Your task to perform on an android device: turn smart compose on in the gmail app Image 0: 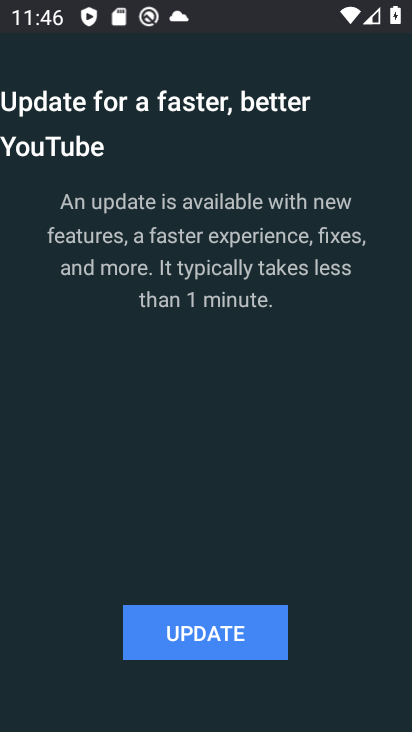
Step 0: press home button
Your task to perform on an android device: turn smart compose on in the gmail app Image 1: 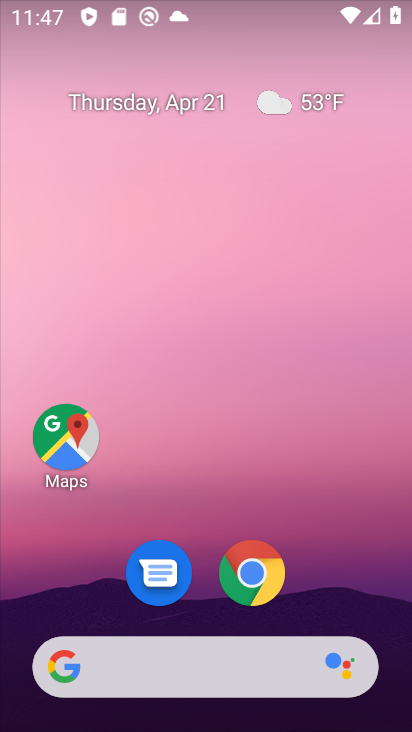
Step 1: drag from (172, 677) to (292, 174)
Your task to perform on an android device: turn smart compose on in the gmail app Image 2: 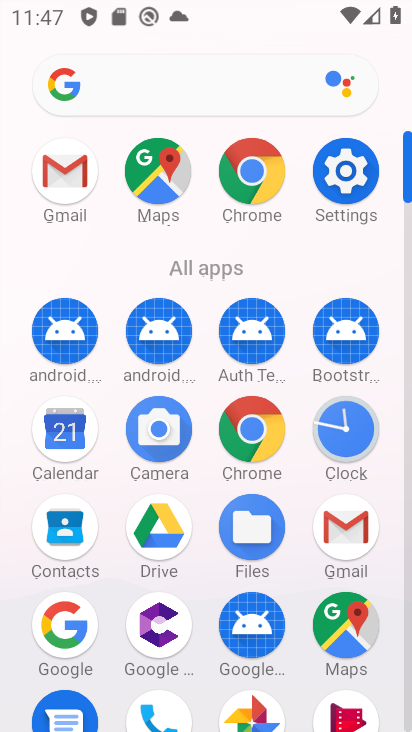
Step 2: click (65, 187)
Your task to perform on an android device: turn smart compose on in the gmail app Image 3: 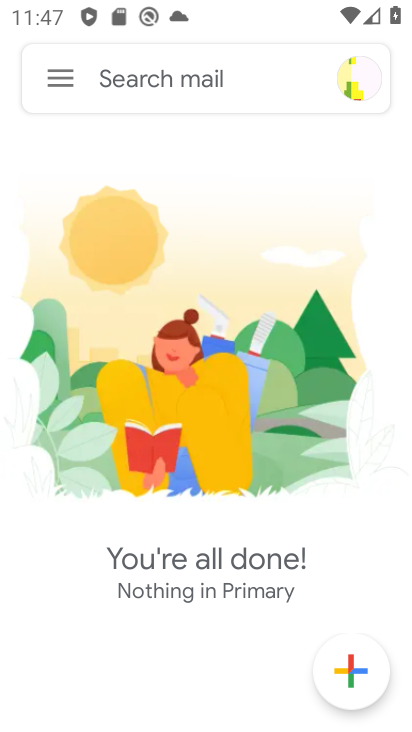
Step 3: click (53, 77)
Your task to perform on an android device: turn smart compose on in the gmail app Image 4: 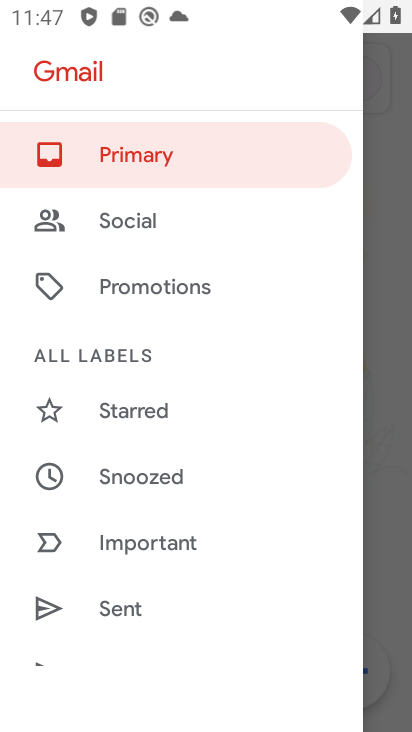
Step 4: drag from (172, 604) to (264, 110)
Your task to perform on an android device: turn smart compose on in the gmail app Image 5: 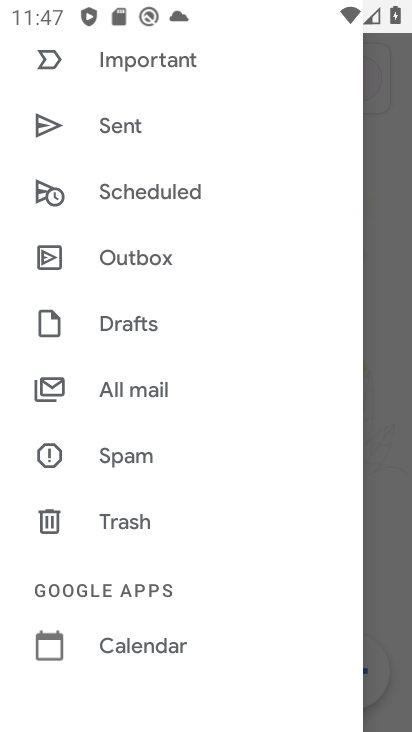
Step 5: drag from (160, 620) to (232, 108)
Your task to perform on an android device: turn smart compose on in the gmail app Image 6: 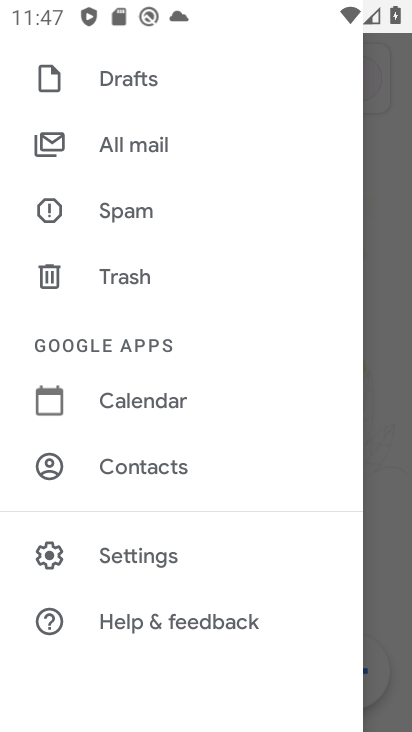
Step 6: click (124, 556)
Your task to perform on an android device: turn smart compose on in the gmail app Image 7: 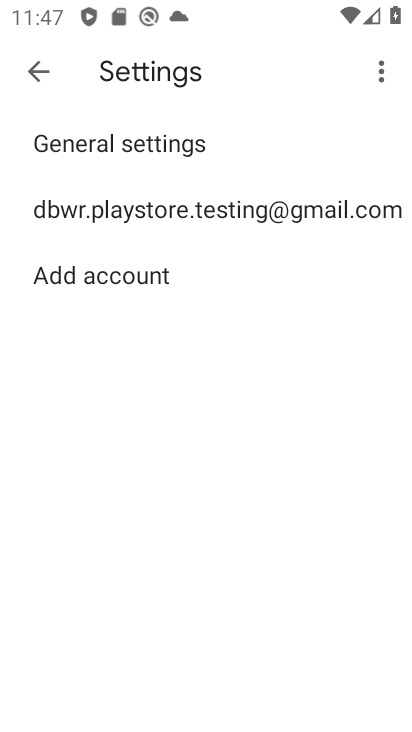
Step 7: click (208, 210)
Your task to perform on an android device: turn smart compose on in the gmail app Image 8: 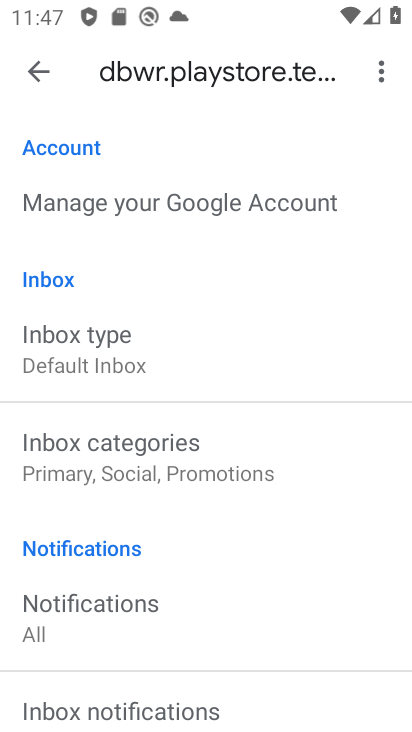
Step 8: task complete